Your task to perform on an android device: Do I have any events this weekend? Image 0: 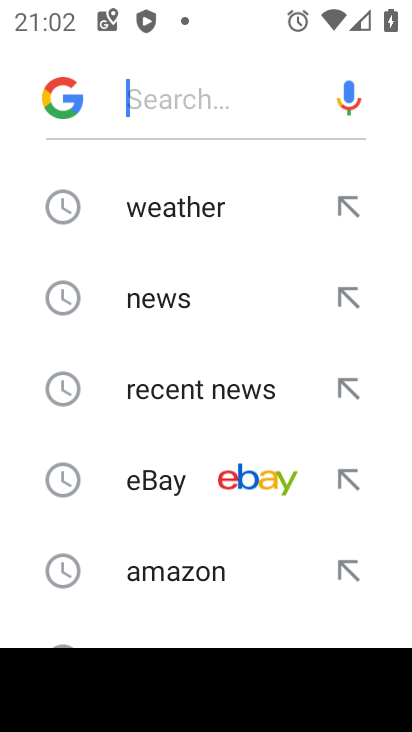
Step 0: press home button
Your task to perform on an android device: Do I have any events this weekend? Image 1: 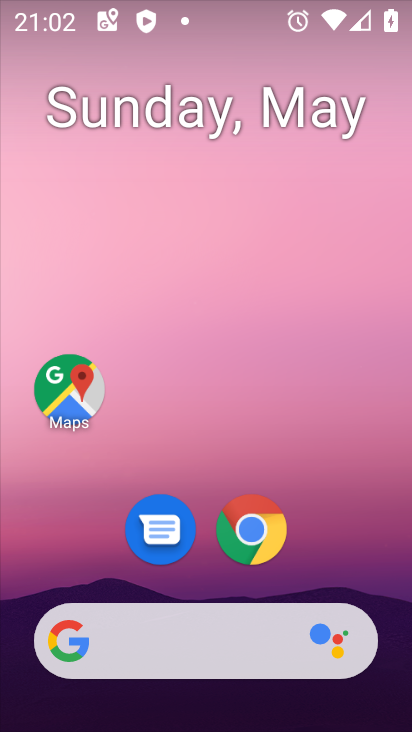
Step 1: drag from (367, 586) to (325, 6)
Your task to perform on an android device: Do I have any events this weekend? Image 2: 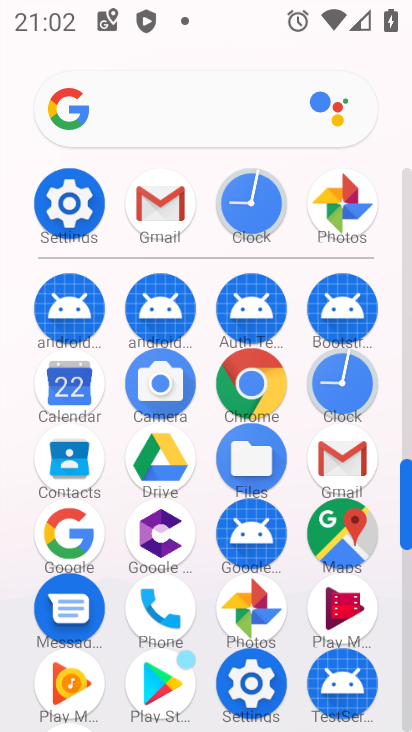
Step 2: click (77, 388)
Your task to perform on an android device: Do I have any events this weekend? Image 3: 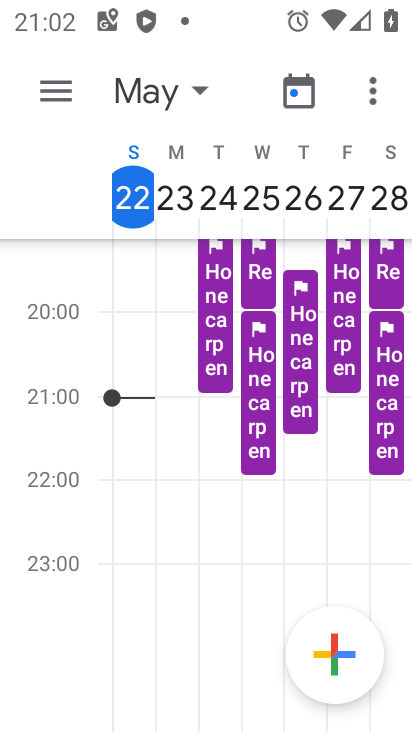
Step 3: click (292, 86)
Your task to perform on an android device: Do I have any events this weekend? Image 4: 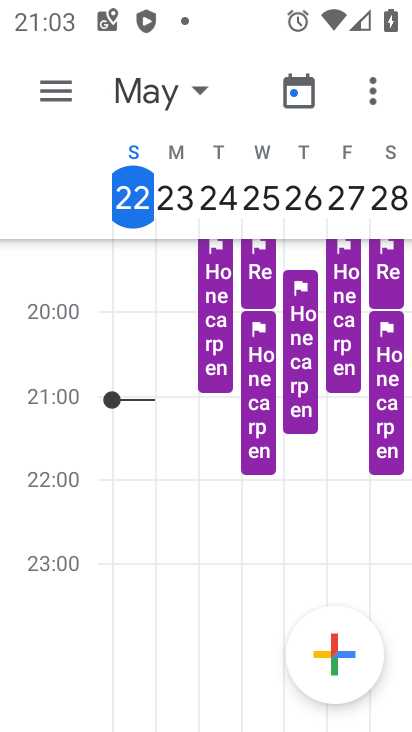
Step 4: click (193, 92)
Your task to perform on an android device: Do I have any events this weekend? Image 5: 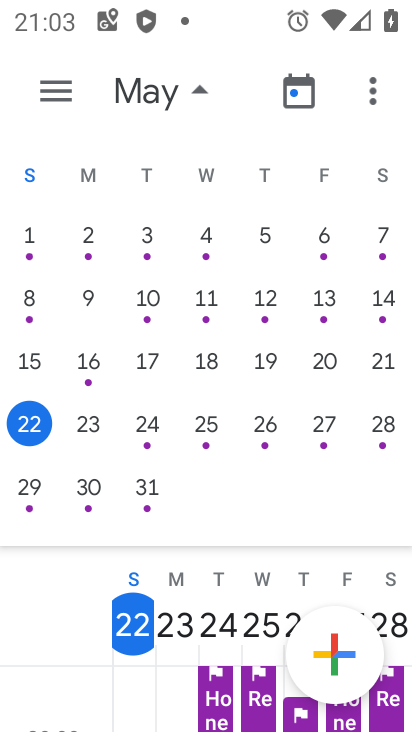
Step 5: click (386, 435)
Your task to perform on an android device: Do I have any events this weekend? Image 6: 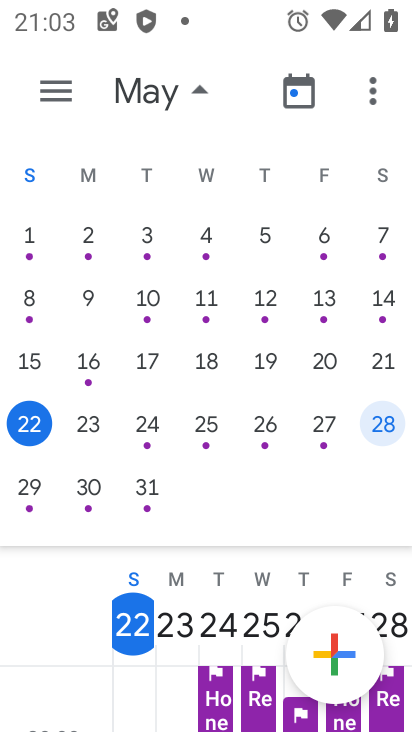
Step 6: click (48, 94)
Your task to perform on an android device: Do I have any events this weekend? Image 7: 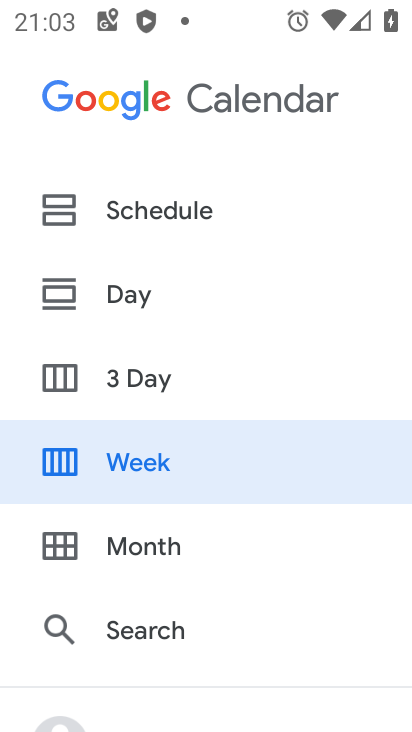
Step 7: click (122, 375)
Your task to perform on an android device: Do I have any events this weekend? Image 8: 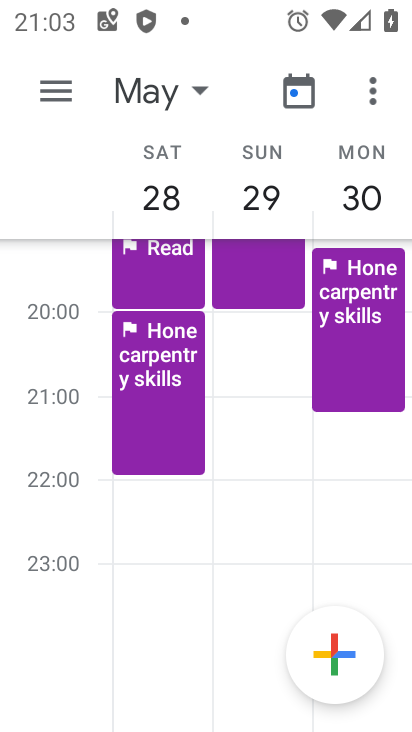
Step 8: task complete